Your task to perform on an android device: Open Wikipedia Image 0: 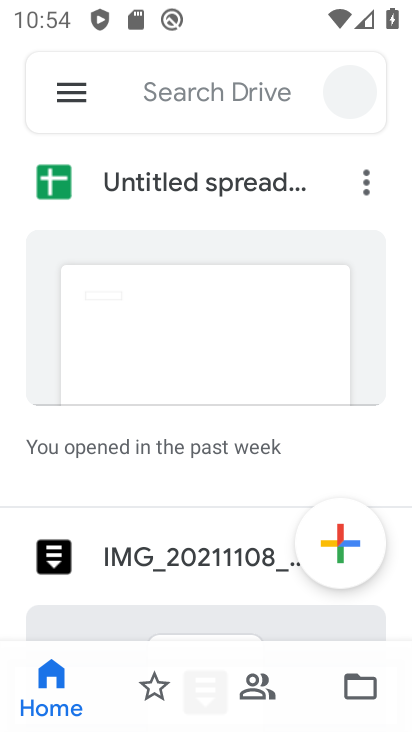
Step 0: press home button
Your task to perform on an android device: Open Wikipedia Image 1: 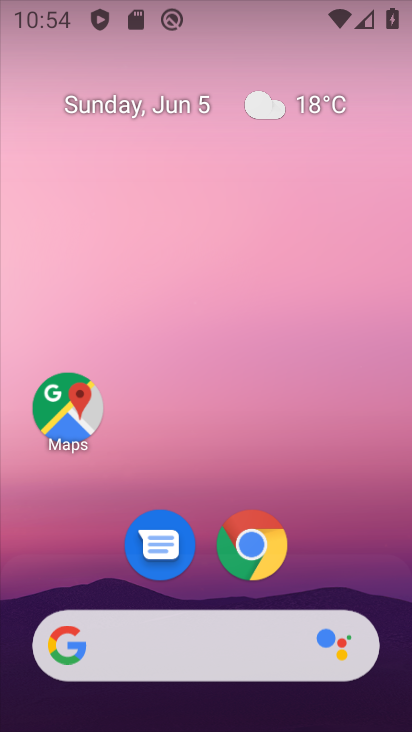
Step 1: drag from (248, 545) to (251, 37)
Your task to perform on an android device: Open Wikipedia Image 2: 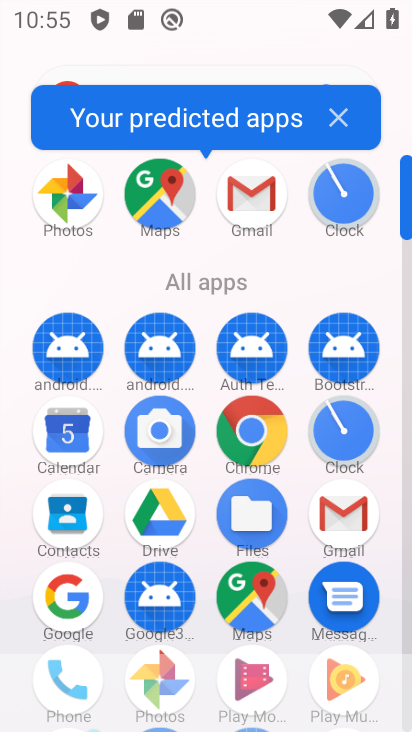
Step 2: drag from (219, 552) to (261, 341)
Your task to perform on an android device: Open Wikipedia Image 3: 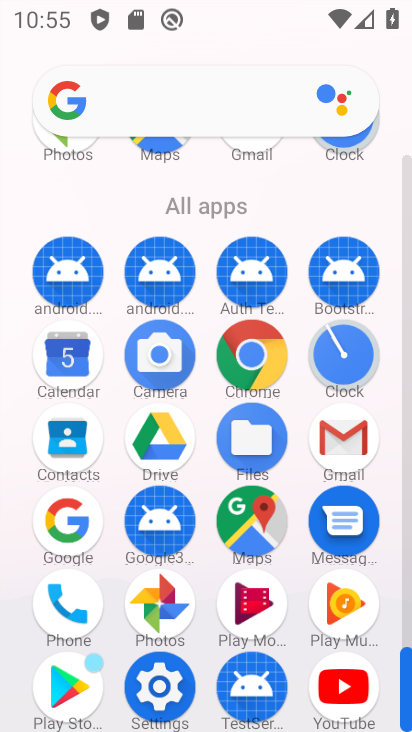
Step 3: click (160, 707)
Your task to perform on an android device: Open Wikipedia Image 4: 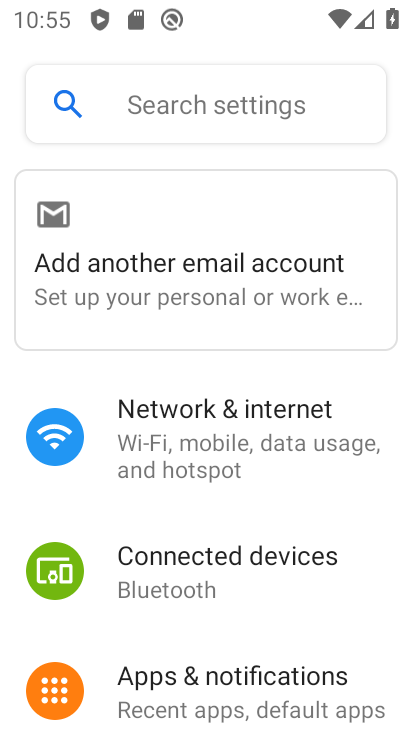
Step 4: press home button
Your task to perform on an android device: Open Wikipedia Image 5: 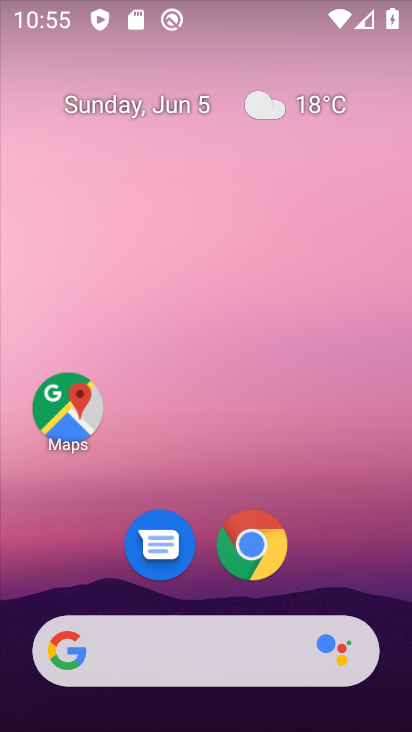
Step 5: drag from (258, 592) to (267, 123)
Your task to perform on an android device: Open Wikipedia Image 6: 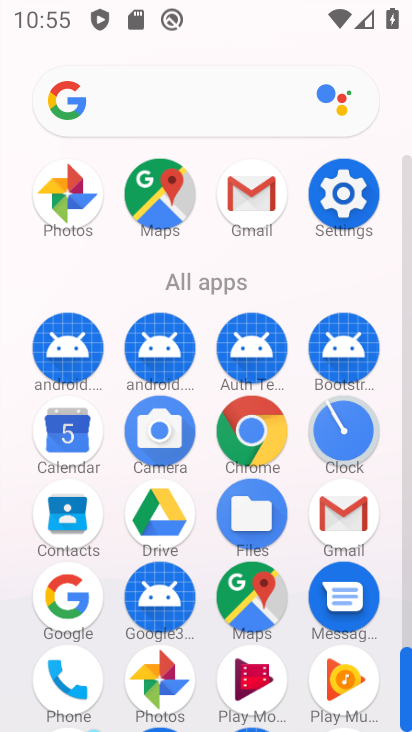
Step 6: click (275, 414)
Your task to perform on an android device: Open Wikipedia Image 7: 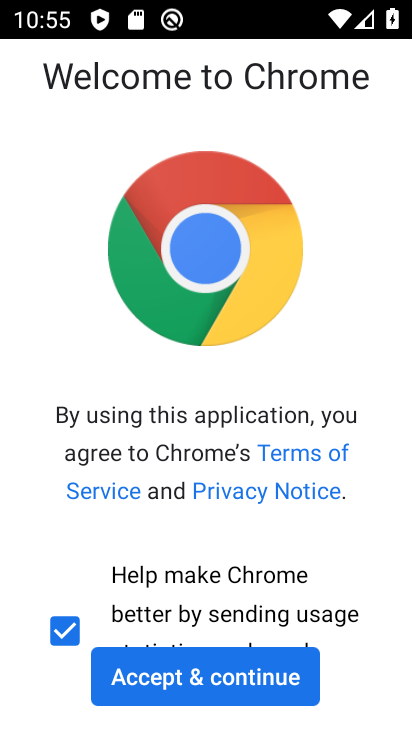
Step 7: click (248, 685)
Your task to perform on an android device: Open Wikipedia Image 8: 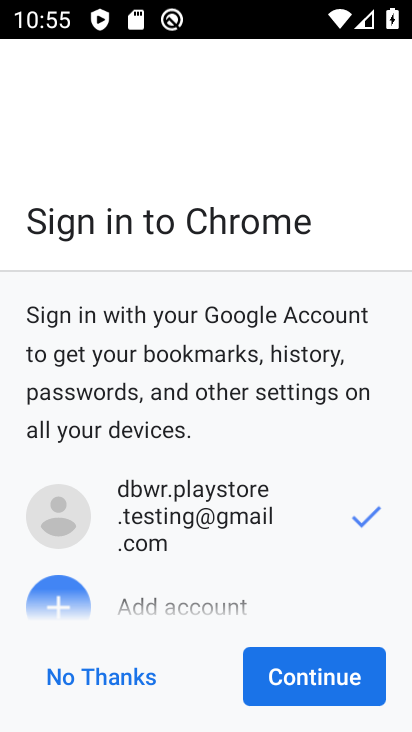
Step 8: click (310, 676)
Your task to perform on an android device: Open Wikipedia Image 9: 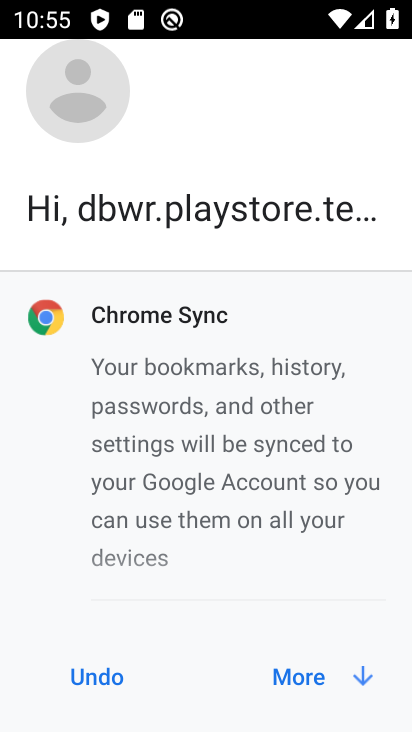
Step 9: click (368, 677)
Your task to perform on an android device: Open Wikipedia Image 10: 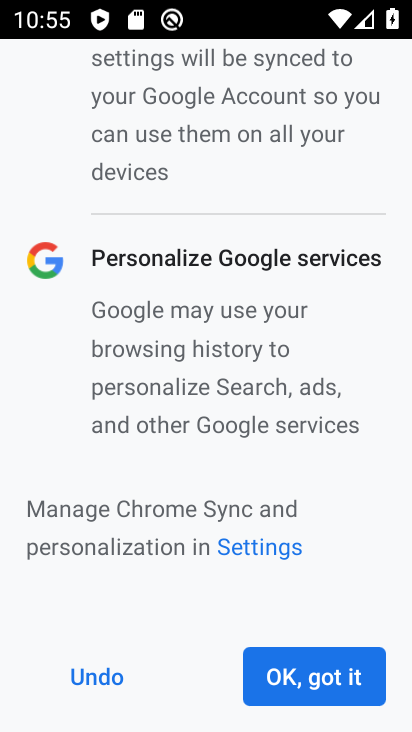
Step 10: click (322, 682)
Your task to perform on an android device: Open Wikipedia Image 11: 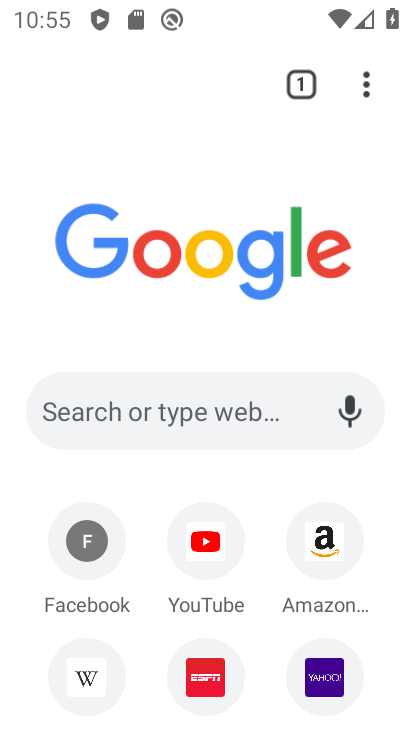
Step 11: click (90, 690)
Your task to perform on an android device: Open Wikipedia Image 12: 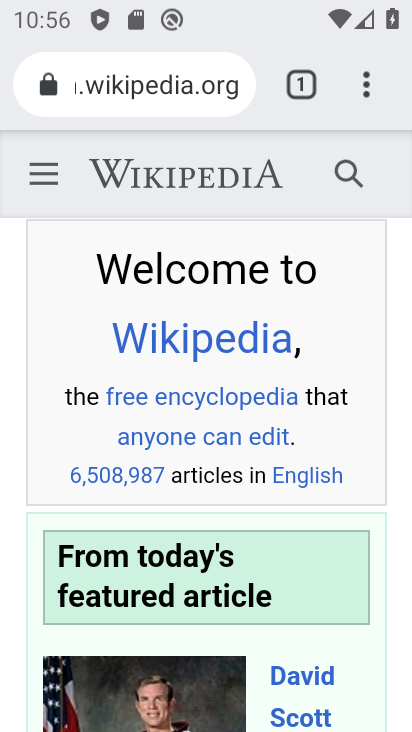
Step 12: task complete